Your task to perform on an android device: turn on showing notifications on the lock screen Image 0: 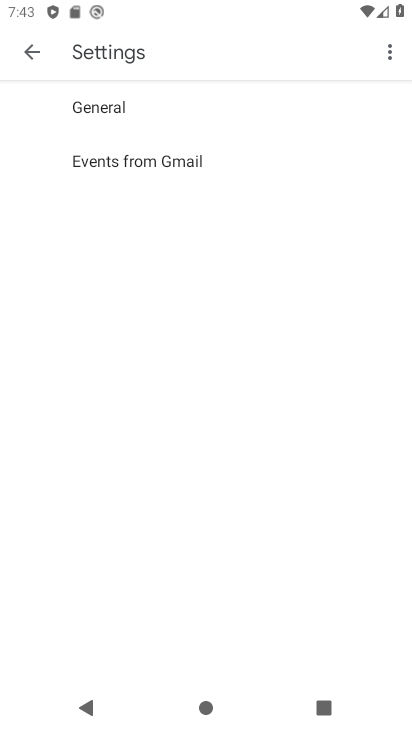
Step 0: press home button
Your task to perform on an android device: turn on showing notifications on the lock screen Image 1: 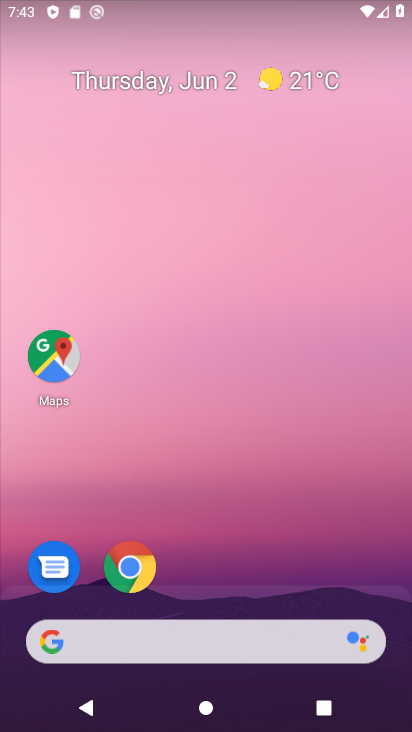
Step 1: drag from (372, 599) to (325, 52)
Your task to perform on an android device: turn on showing notifications on the lock screen Image 2: 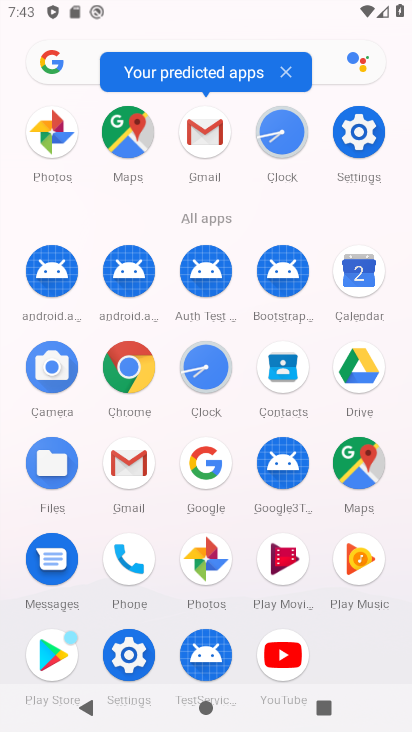
Step 2: click (131, 654)
Your task to perform on an android device: turn on showing notifications on the lock screen Image 3: 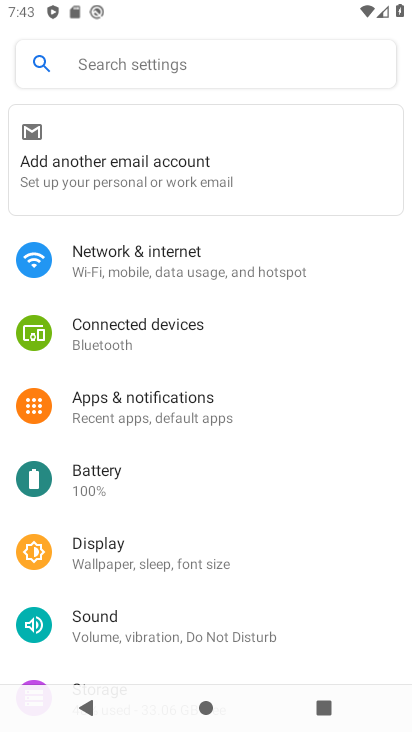
Step 3: click (119, 402)
Your task to perform on an android device: turn on showing notifications on the lock screen Image 4: 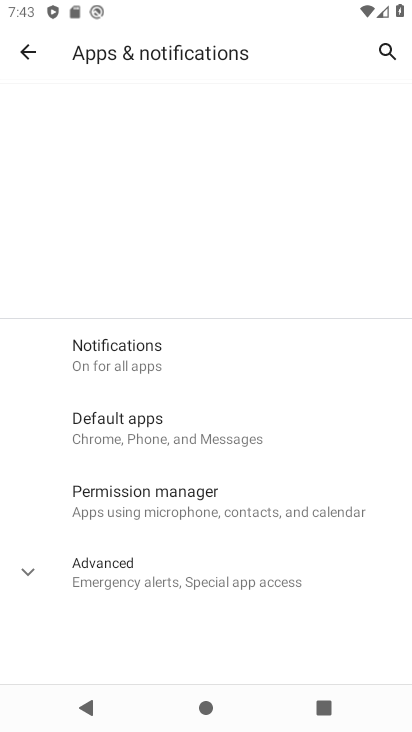
Step 4: click (116, 360)
Your task to perform on an android device: turn on showing notifications on the lock screen Image 5: 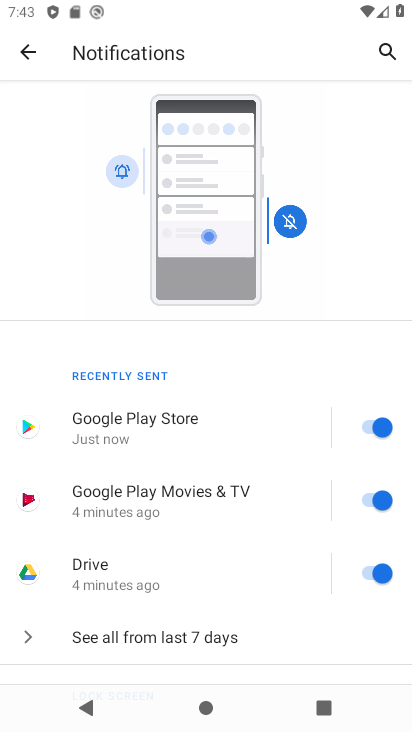
Step 5: drag from (330, 657) to (271, 245)
Your task to perform on an android device: turn on showing notifications on the lock screen Image 6: 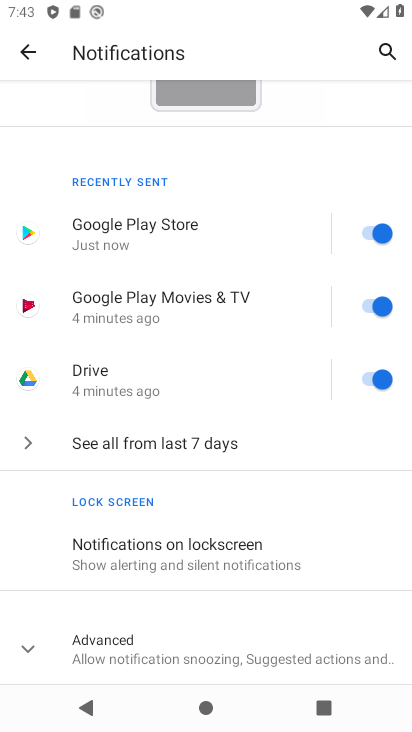
Step 6: click (204, 550)
Your task to perform on an android device: turn on showing notifications on the lock screen Image 7: 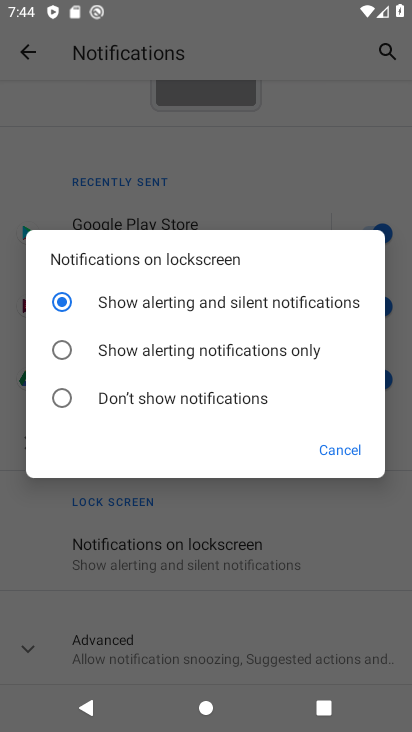
Step 7: task complete